Your task to perform on an android device: open a new tab in the chrome app Image 0: 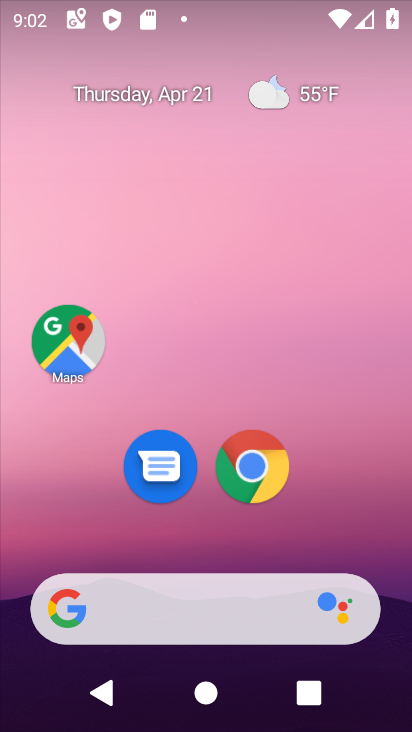
Step 0: click (248, 480)
Your task to perform on an android device: open a new tab in the chrome app Image 1: 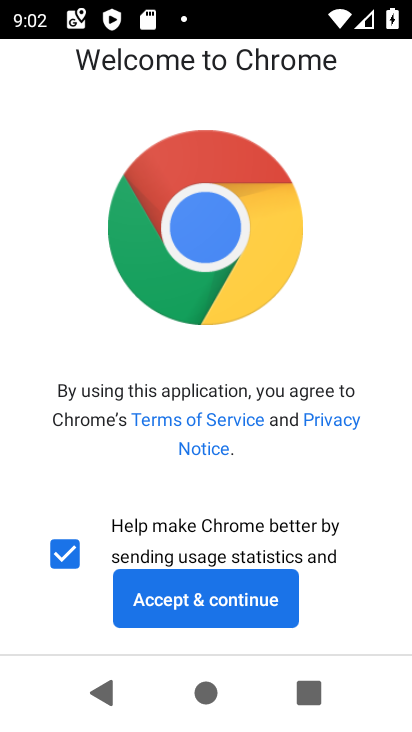
Step 1: click (245, 622)
Your task to perform on an android device: open a new tab in the chrome app Image 2: 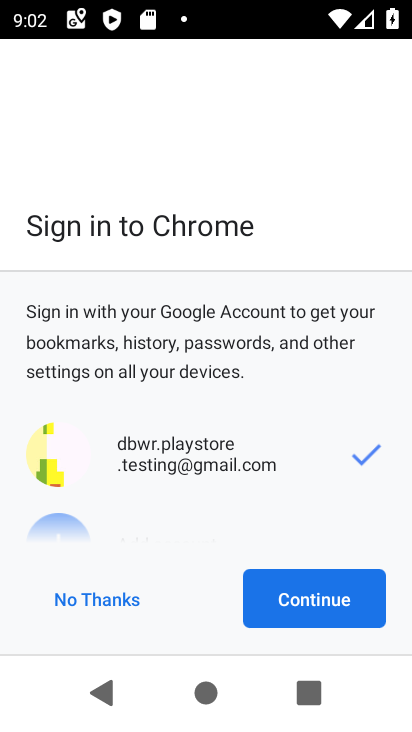
Step 2: click (280, 611)
Your task to perform on an android device: open a new tab in the chrome app Image 3: 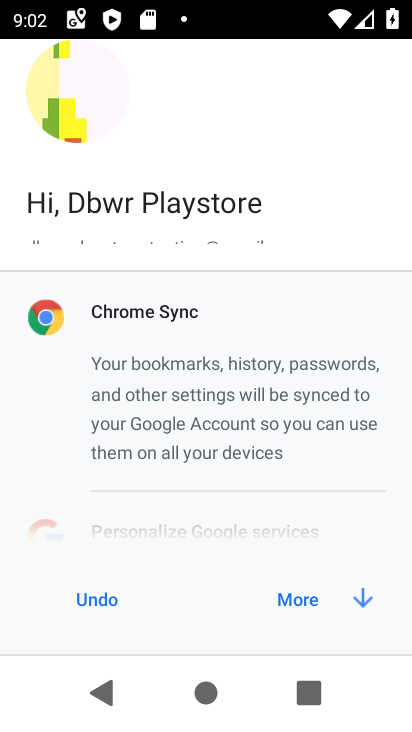
Step 3: click (279, 612)
Your task to perform on an android device: open a new tab in the chrome app Image 4: 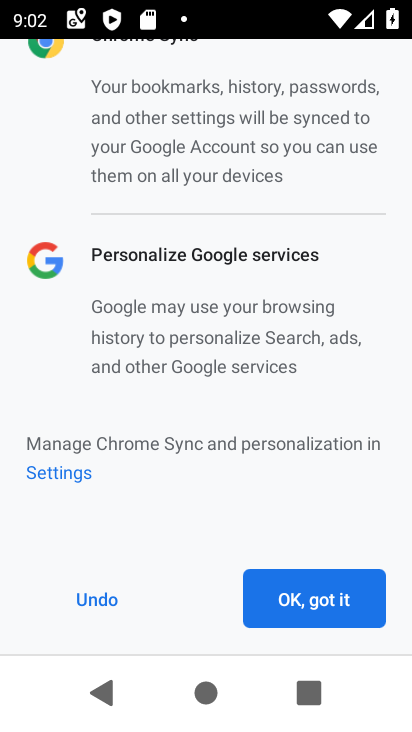
Step 4: click (280, 611)
Your task to perform on an android device: open a new tab in the chrome app Image 5: 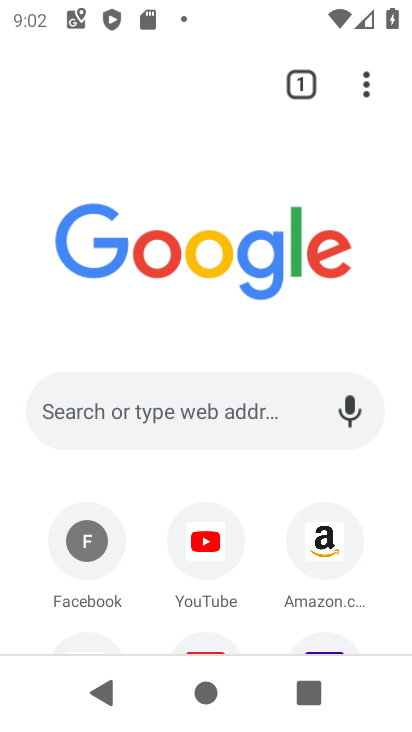
Step 5: task complete